Your task to perform on an android device: Go to internet settings Image 0: 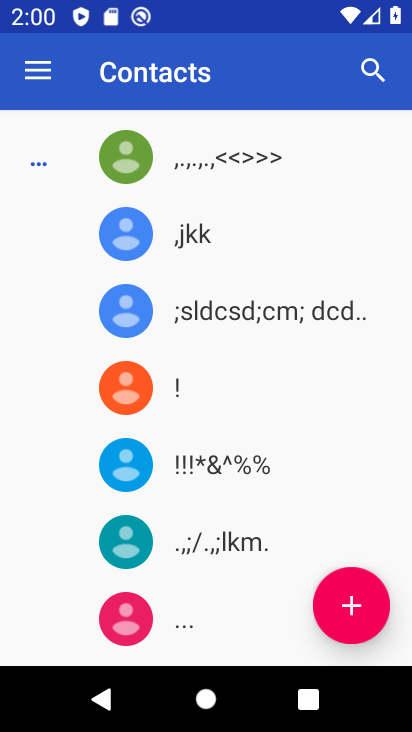
Step 0: press home button
Your task to perform on an android device: Go to internet settings Image 1: 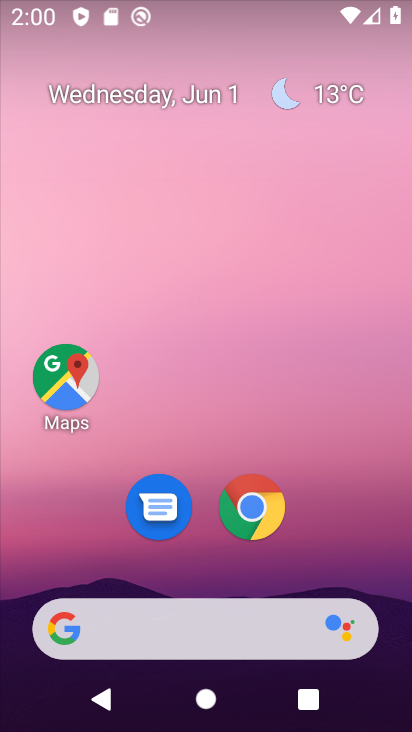
Step 1: drag from (357, 586) to (290, 20)
Your task to perform on an android device: Go to internet settings Image 2: 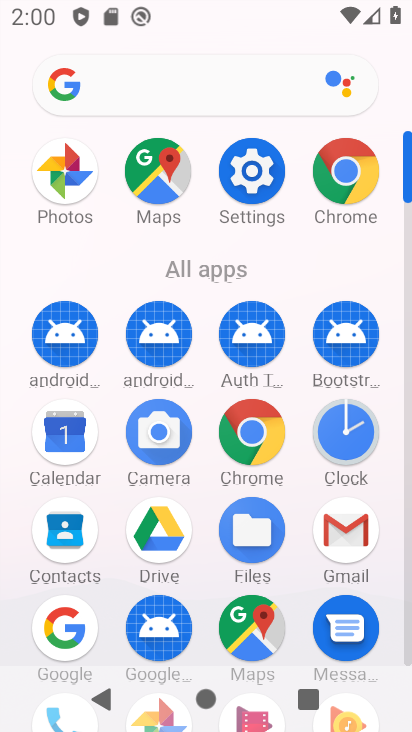
Step 2: click (248, 178)
Your task to perform on an android device: Go to internet settings Image 3: 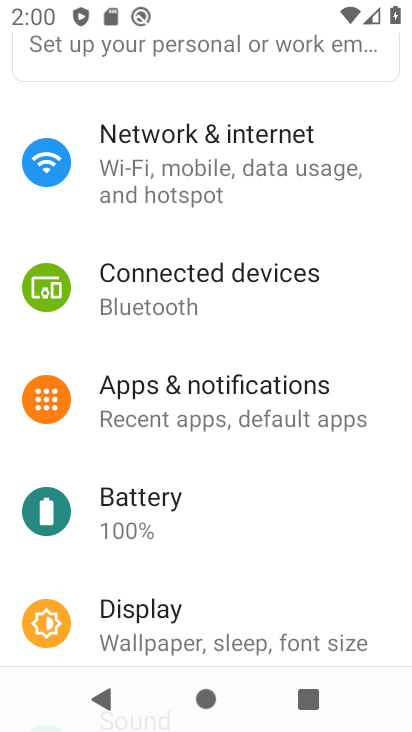
Step 3: click (255, 156)
Your task to perform on an android device: Go to internet settings Image 4: 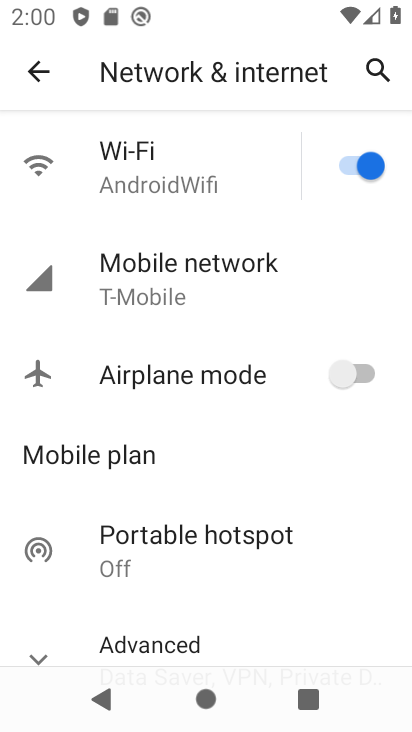
Step 4: task complete